Your task to perform on an android device: toggle wifi Image 0: 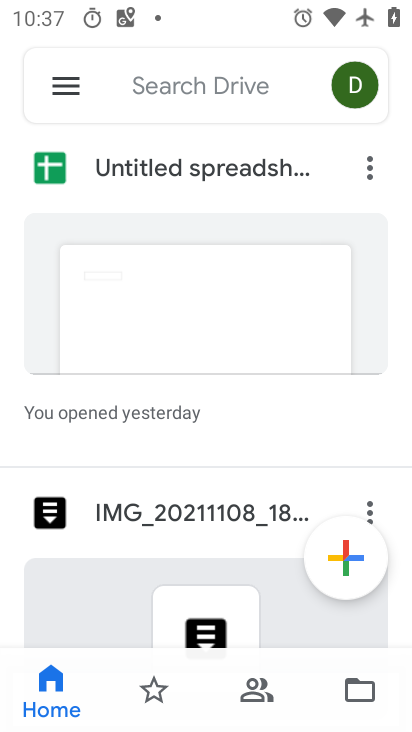
Step 0: press home button
Your task to perform on an android device: toggle wifi Image 1: 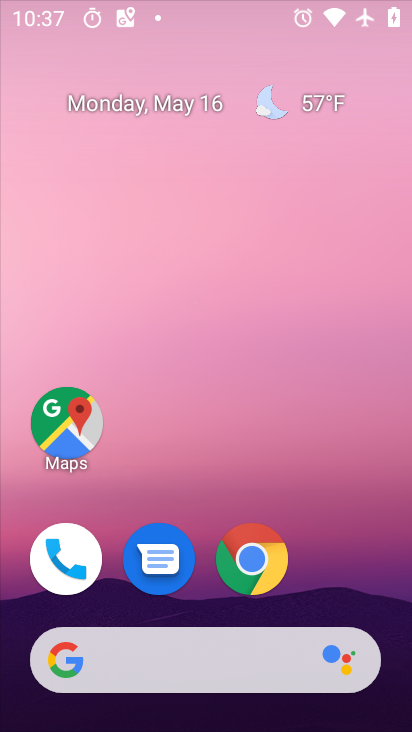
Step 1: drag from (225, 517) to (278, 58)
Your task to perform on an android device: toggle wifi Image 2: 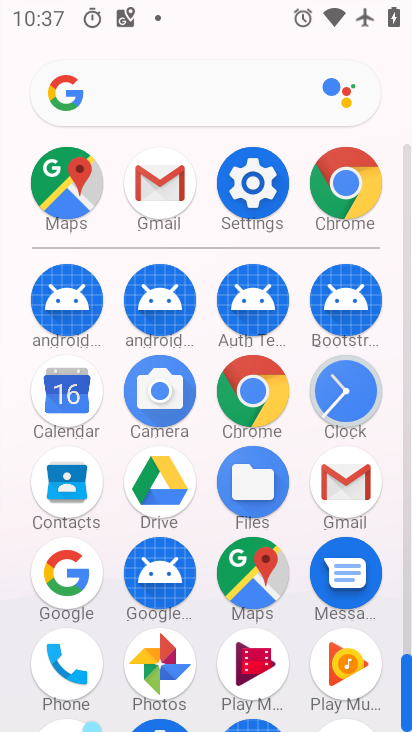
Step 2: click (250, 166)
Your task to perform on an android device: toggle wifi Image 3: 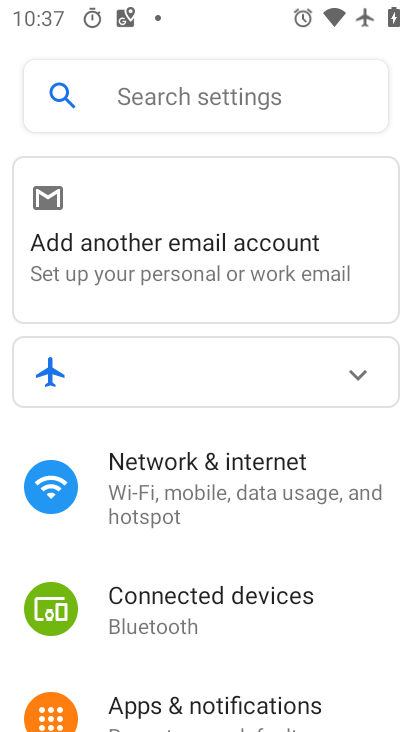
Step 3: drag from (243, 570) to (316, 236)
Your task to perform on an android device: toggle wifi Image 4: 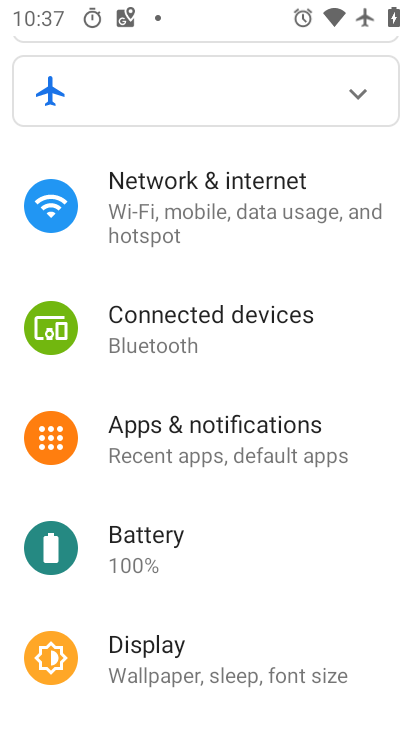
Step 4: click (280, 190)
Your task to perform on an android device: toggle wifi Image 5: 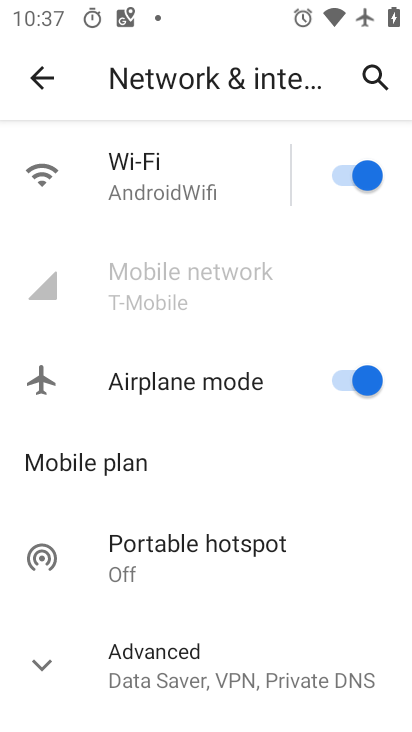
Step 5: click (225, 183)
Your task to perform on an android device: toggle wifi Image 6: 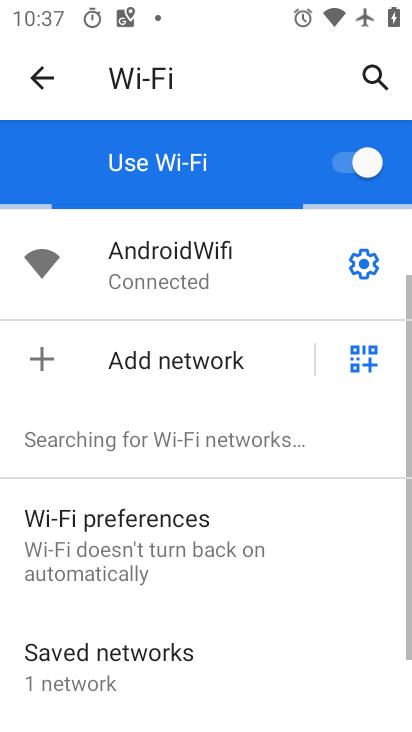
Step 6: click (372, 169)
Your task to perform on an android device: toggle wifi Image 7: 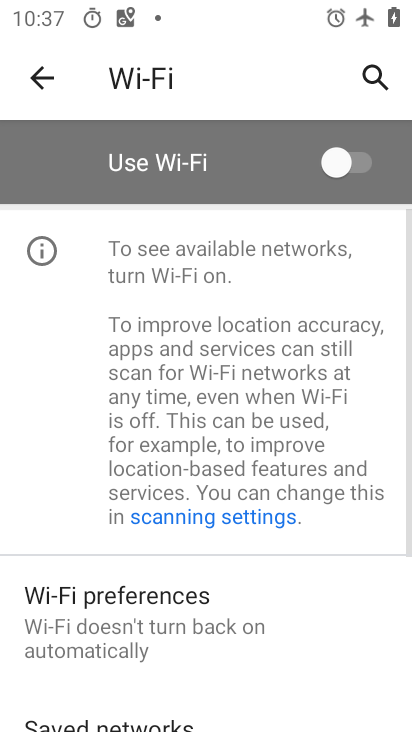
Step 7: task complete